Your task to perform on an android device: Search for razer blade on bestbuy, select the first entry, and add it to the cart. Image 0: 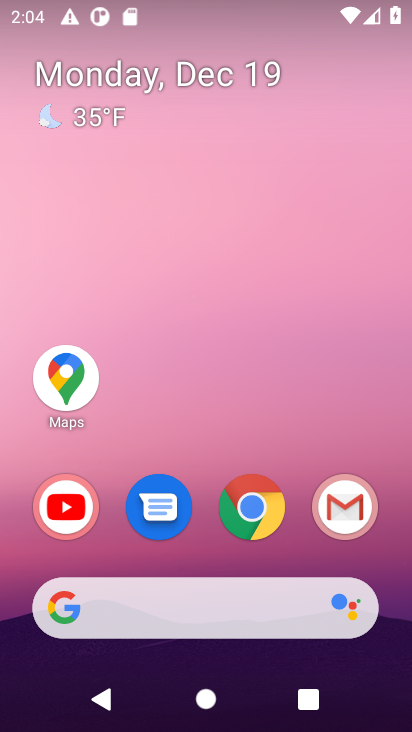
Step 0: click (255, 507)
Your task to perform on an android device: Search for razer blade on bestbuy, select the first entry, and add it to the cart. Image 1: 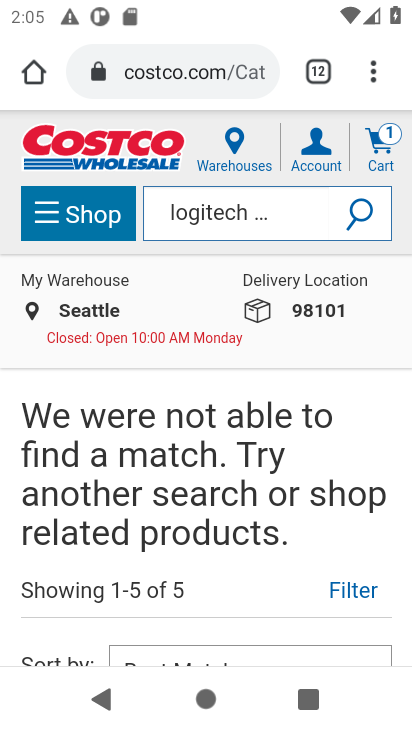
Step 1: click (161, 75)
Your task to perform on an android device: Search for razer blade on bestbuy, select the first entry, and add it to the cart. Image 2: 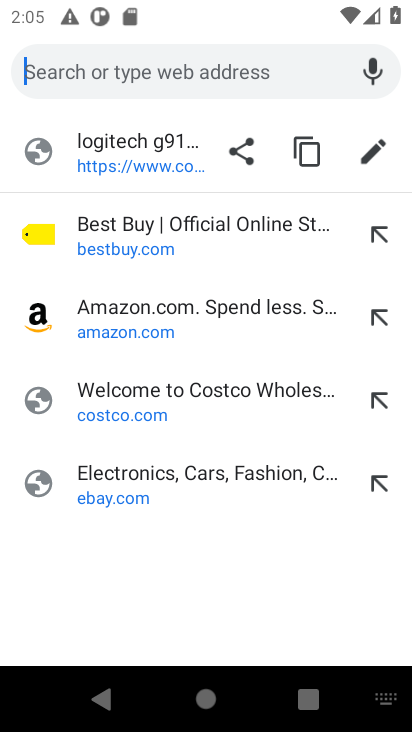
Step 2: click (109, 217)
Your task to perform on an android device: Search for razer blade on bestbuy, select the first entry, and add it to the cart. Image 3: 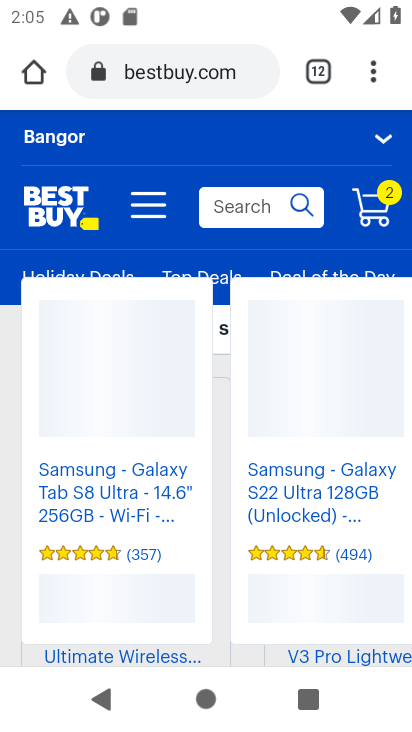
Step 3: click (230, 214)
Your task to perform on an android device: Search for razer blade on bestbuy, select the first entry, and add it to the cart. Image 4: 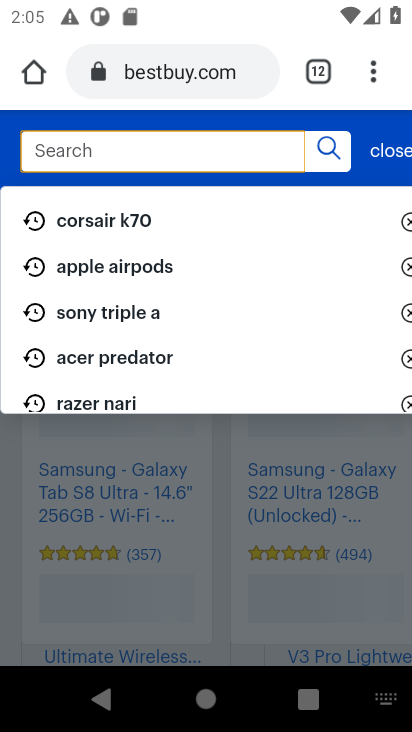
Step 4: type "razer blade"
Your task to perform on an android device: Search for razer blade on bestbuy, select the first entry, and add it to the cart. Image 5: 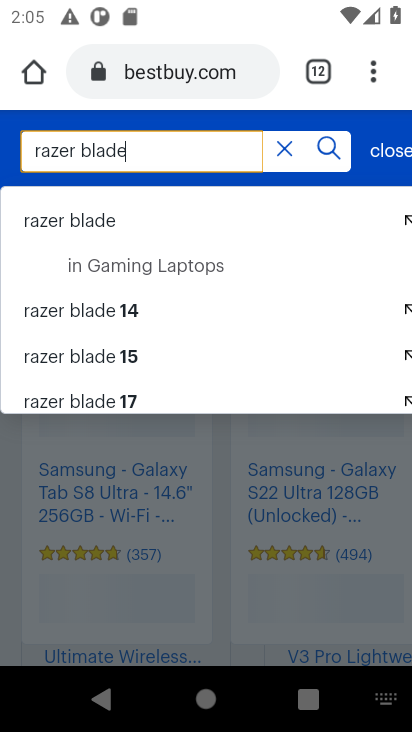
Step 5: click (63, 219)
Your task to perform on an android device: Search for razer blade on bestbuy, select the first entry, and add it to the cart. Image 6: 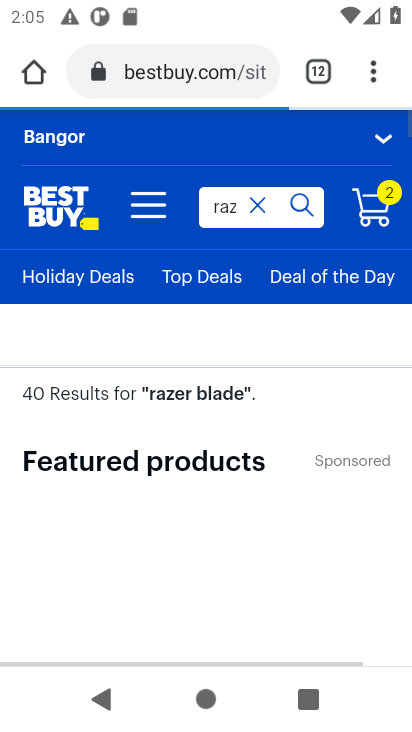
Step 6: drag from (164, 482) to (154, 190)
Your task to perform on an android device: Search for razer blade on bestbuy, select the first entry, and add it to the cart. Image 7: 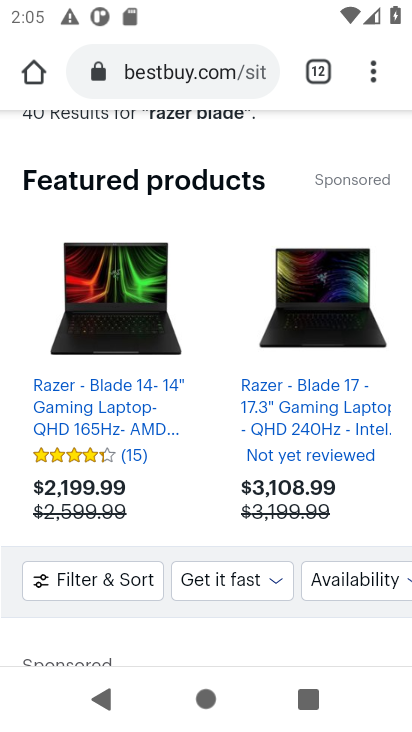
Step 7: drag from (226, 436) to (204, 109)
Your task to perform on an android device: Search for razer blade on bestbuy, select the first entry, and add it to the cart. Image 8: 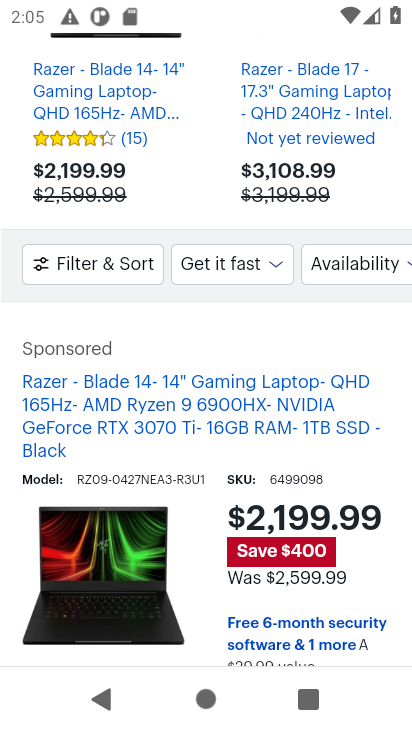
Step 8: drag from (153, 387) to (128, 173)
Your task to perform on an android device: Search for razer blade on bestbuy, select the first entry, and add it to the cart. Image 9: 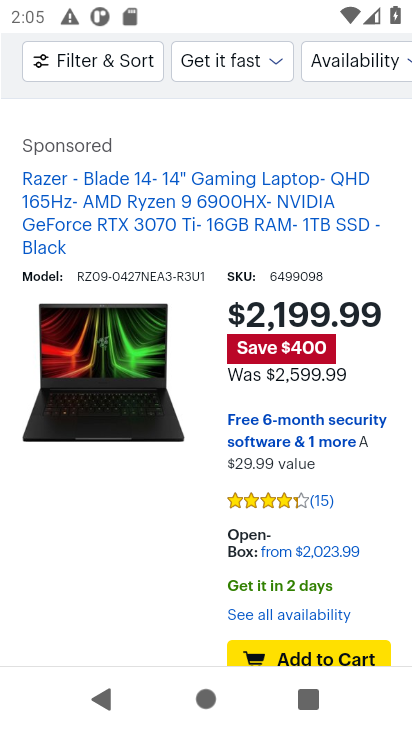
Step 9: drag from (154, 473) to (155, 335)
Your task to perform on an android device: Search for razer blade on bestbuy, select the first entry, and add it to the cart. Image 10: 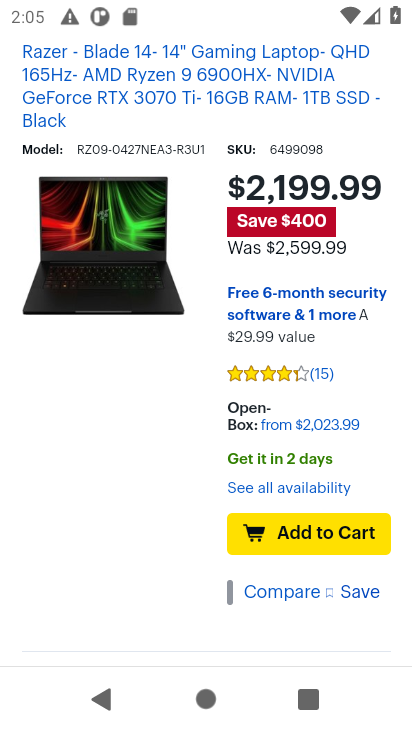
Step 10: click (279, 535)
Your task to perform on an android device: Search for razer blade on bestbuy, select the first entry, and add it to the cart. Image 11: 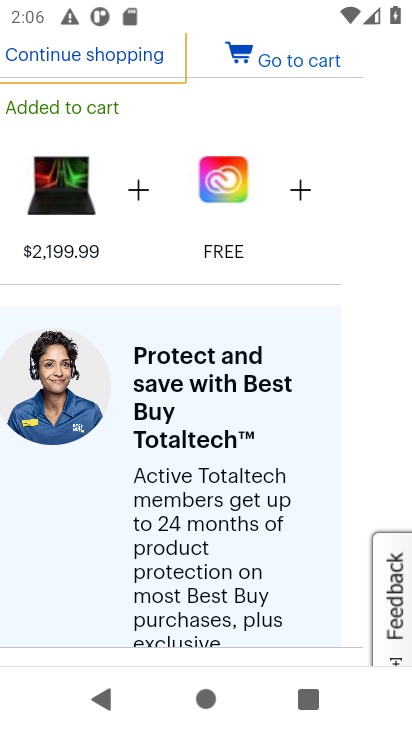
Step 11: task complete